Your task to perform on an android device: turn pop-ups on in chrome Image 0: 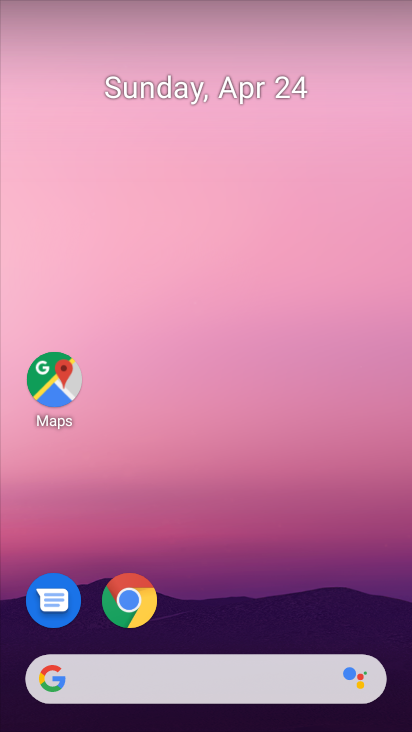
Step 0: click (130, 608)
Your task to perform on an android device: turn pop-ups on in chrome Image 1: 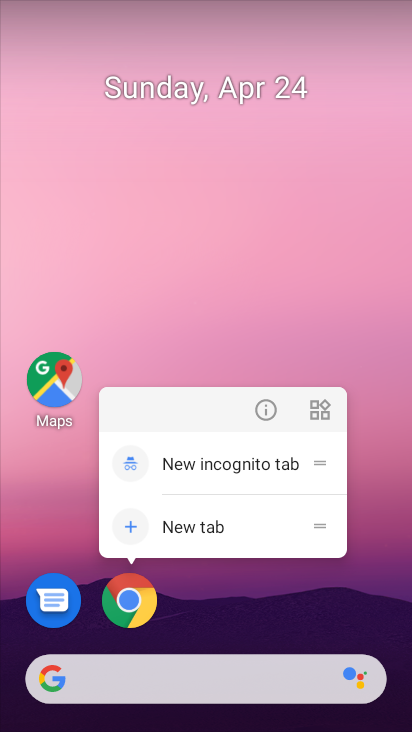
Step 1: click (130, 608)
Your task to perform on an android device: turn pop-ups on in chrome Image 2: 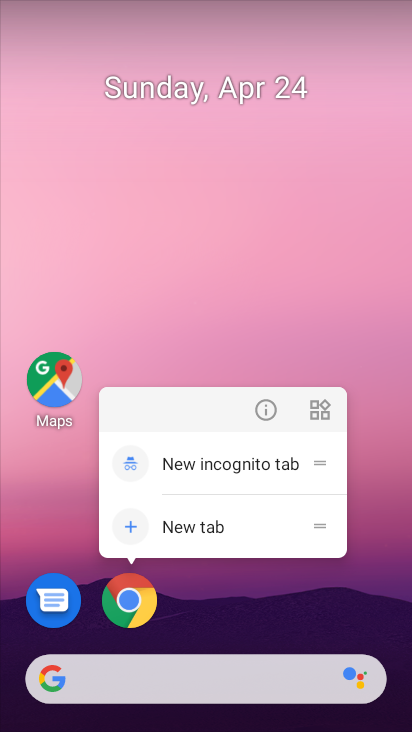
Step 2: click (126, 601)
Your task to perform on an android device: turn pop-ups on in chrome Image 3: 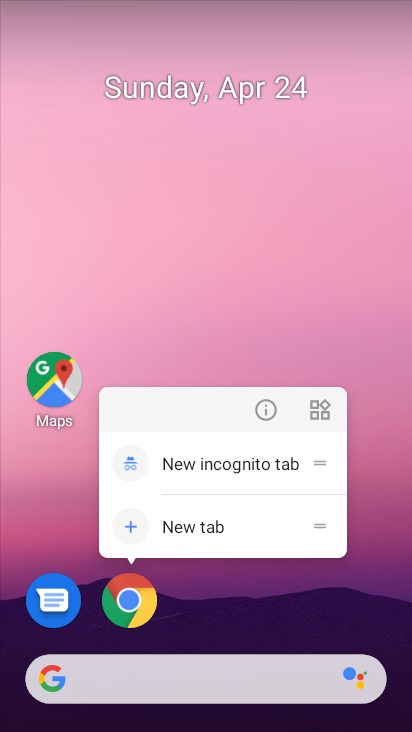
Step 3: click (112, 609)
Your task to perform on an android device: turn pop-ups on in chrome Image 4: 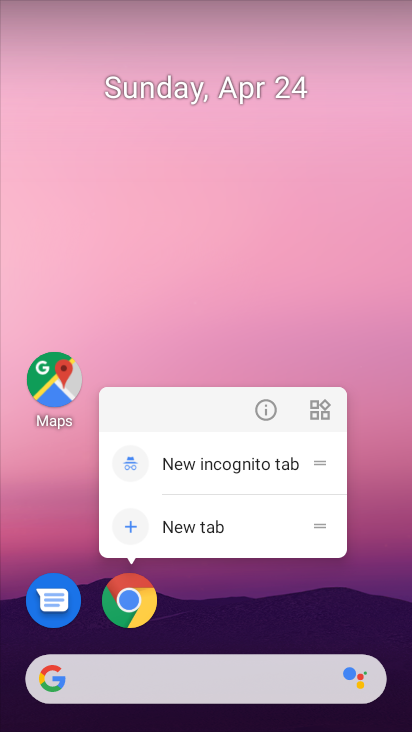
Step 4: click (129, 595)
Your task to perform on an android device: turn pop-ups on in chrome Image 5: 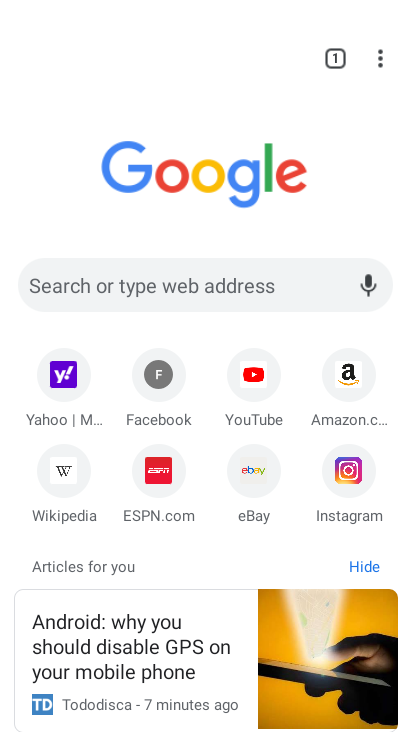
Step 5: click (377, 56)
Your task to perform on an android device: turn pop-ups on in chrome Image 6: 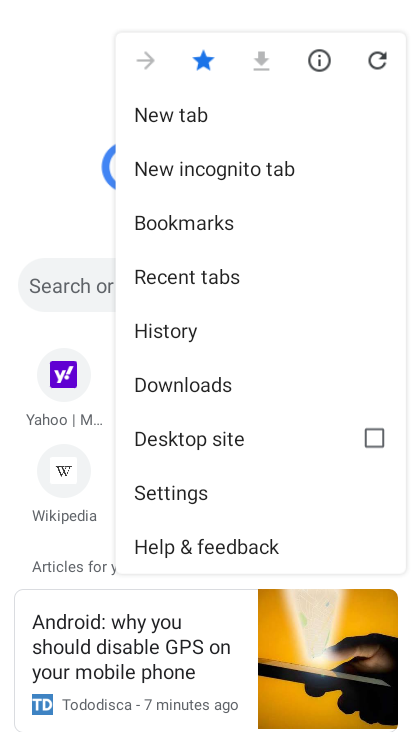
Step 6: click (186, 492)
Your task to perform on an android device: turn pop-ups on in chrome Image 7: 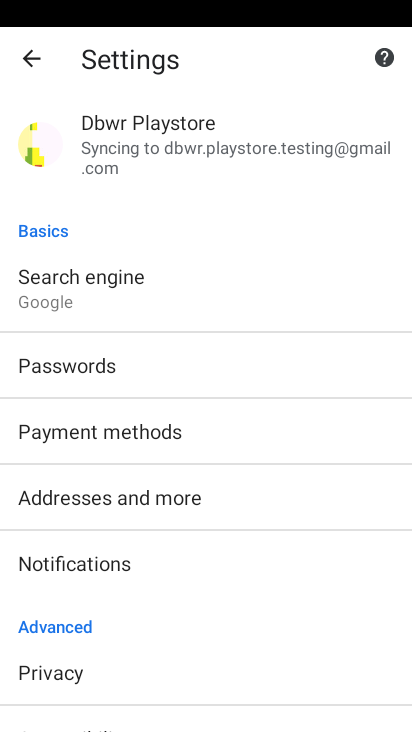
Step 7: drag from (67, 454) to (184, 491)
Your task to perform on an android device: turn pop-ups on in chrome Image 8: 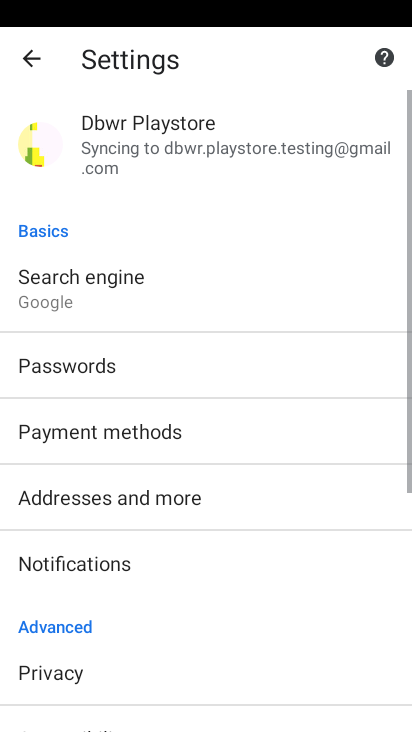
Step 8: drag from (65, 505) to (188, 594)
Your task to perform on an android device: turn pop-ups on in chrome Image 9: 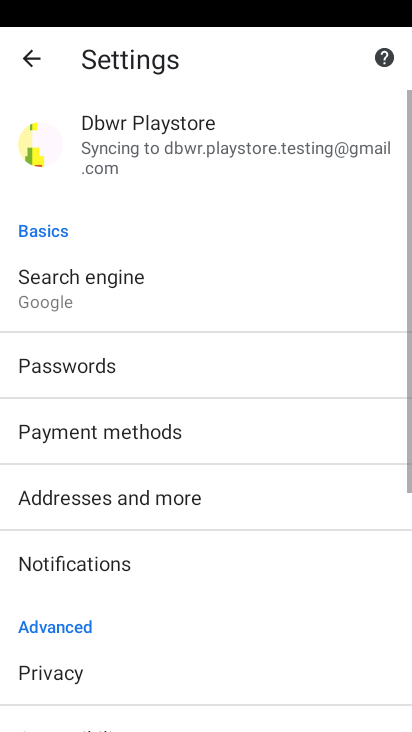
Step 9: drag from (179, 621) to (157, 296)
Your task to perform on an android device: turn pop-ups on in chrome Image 10: 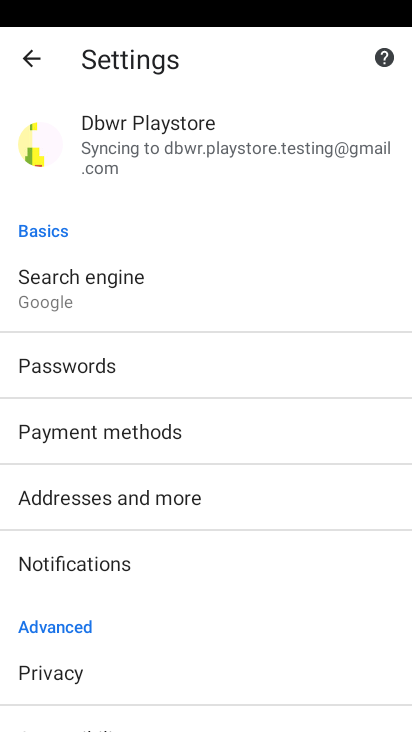
Step 10: drag from (164, 611) to (134, 95)
Your task to perform on an android device: turn pop-ups on in chrome Image 11: 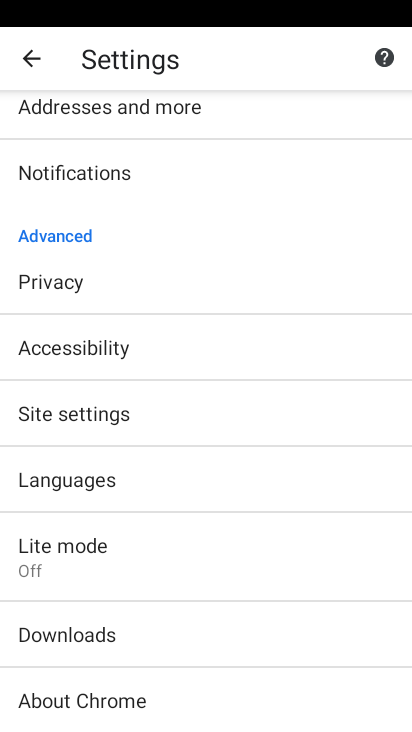
Step 11: click (59, 417)
Your task to perform on an android device: turn pop-ups on in chrome Image 12: 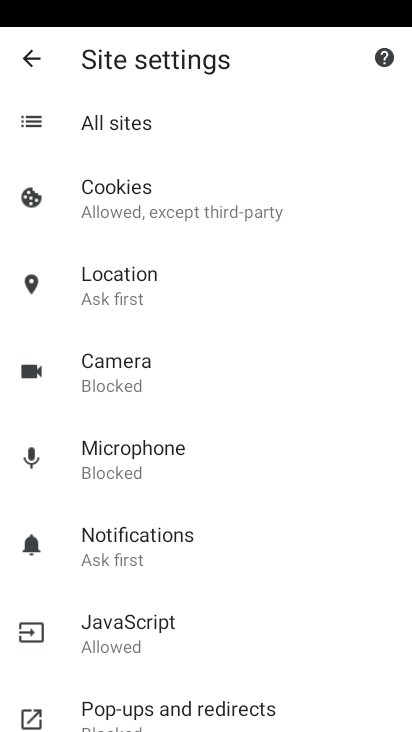
Step 12: click (155, 705)
Your task to perform on an android device: turn pop-ups on in chrome Image 13: 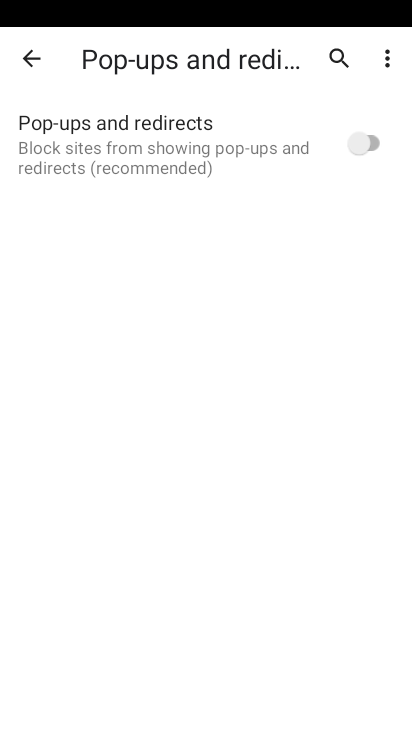
Step 13: click (364, 141)
Your task to perform on an android device: turn pop-ups on in chrome Image 14: 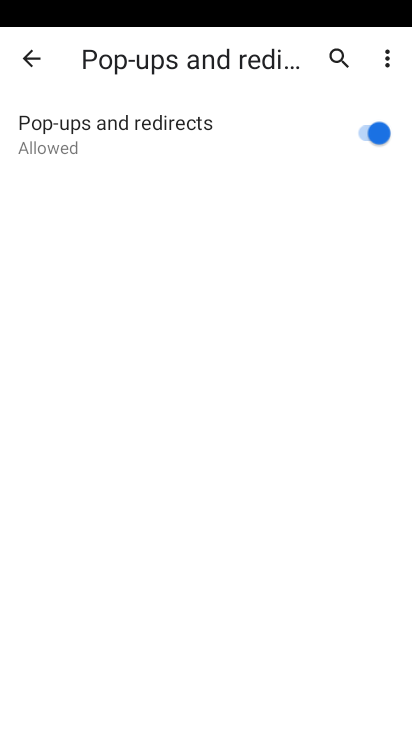
Step 14: task complete